Your task to perform on an android device: Go to eBay Image 0: 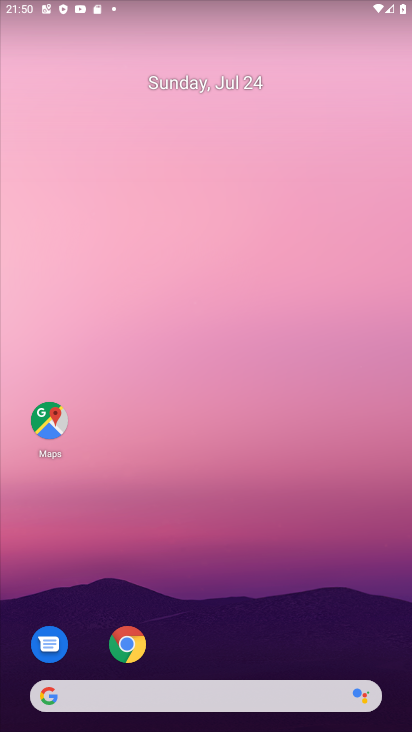
Step 0: click (127, 648)
Your task to perform on an android device: Go to eBay Image 1: 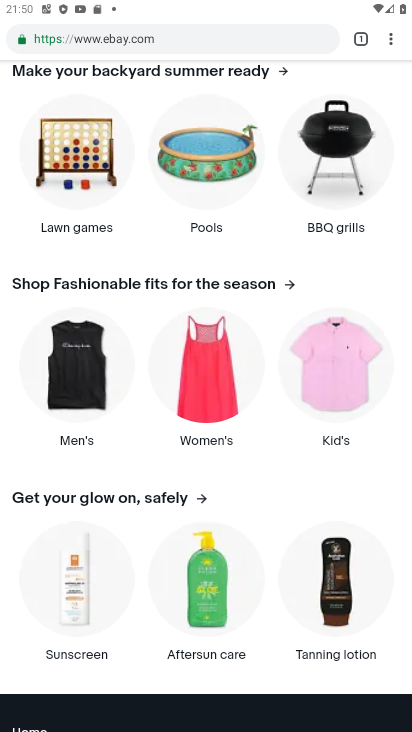
Step 1: task complete